Your task to perform on an android device: open a bookmark in the chrome app Image 0: 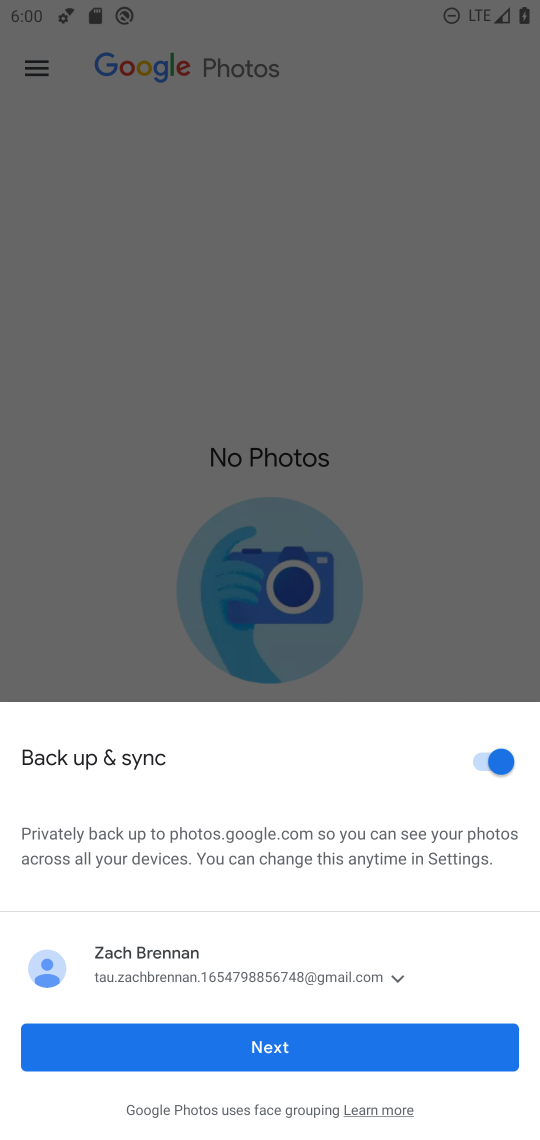
Step 0: press home button
Your task to perform on an android device: open a bookmark in the chrome app Image 1: 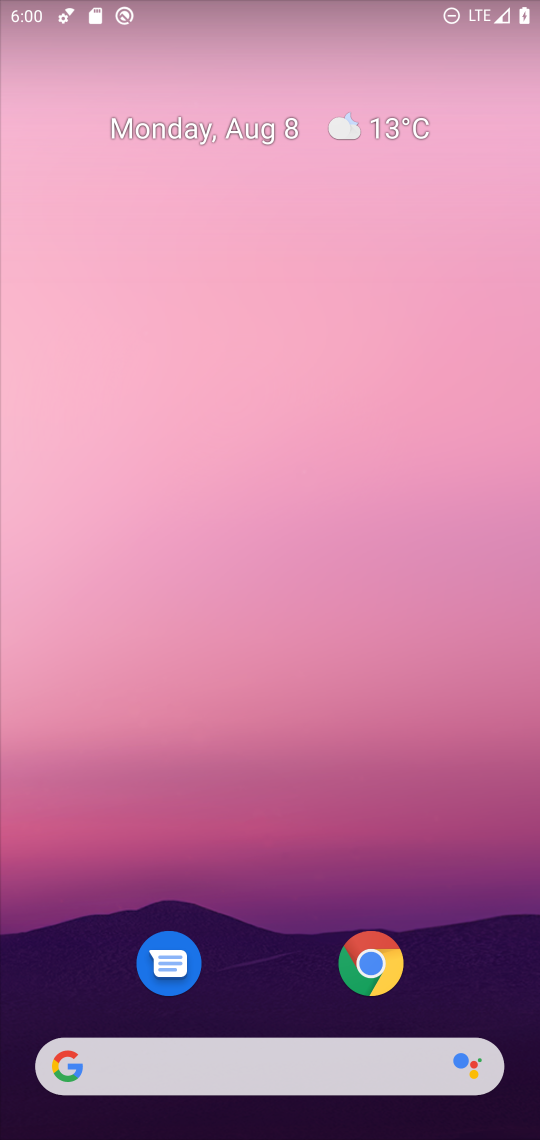
Step 1: drag from (294, 870) to (344, 92)
Your task to perform on an android device: open a bookmark in the chrome app Image 2: 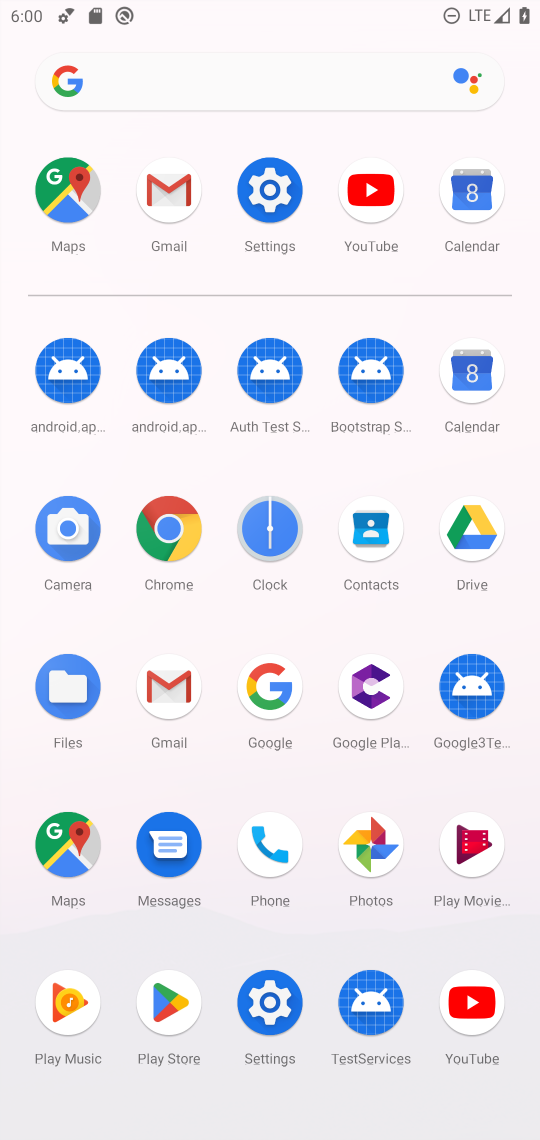
Step 2: click (174, 528)
Your task to perform on an android device: open a bookmark in the chrome app Image 3: 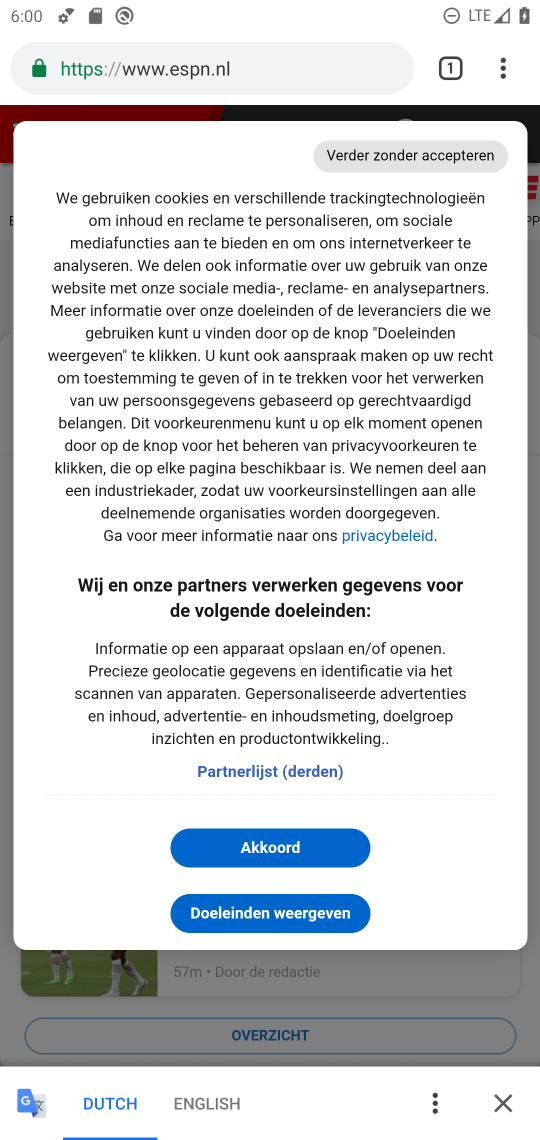
Step 3: click (491, 65)
Your task to perform on an android device: open a bookmark in the chrome app Image 4: 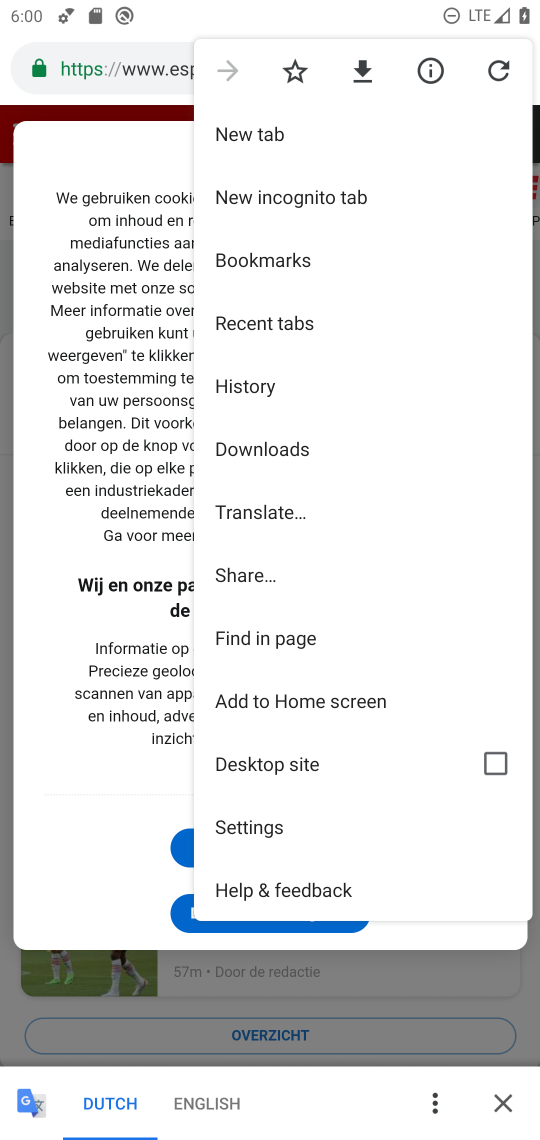
Step 4: click (326, 260)
Your task to perform on an android device: open a bookmark in the chrome app Image 5: 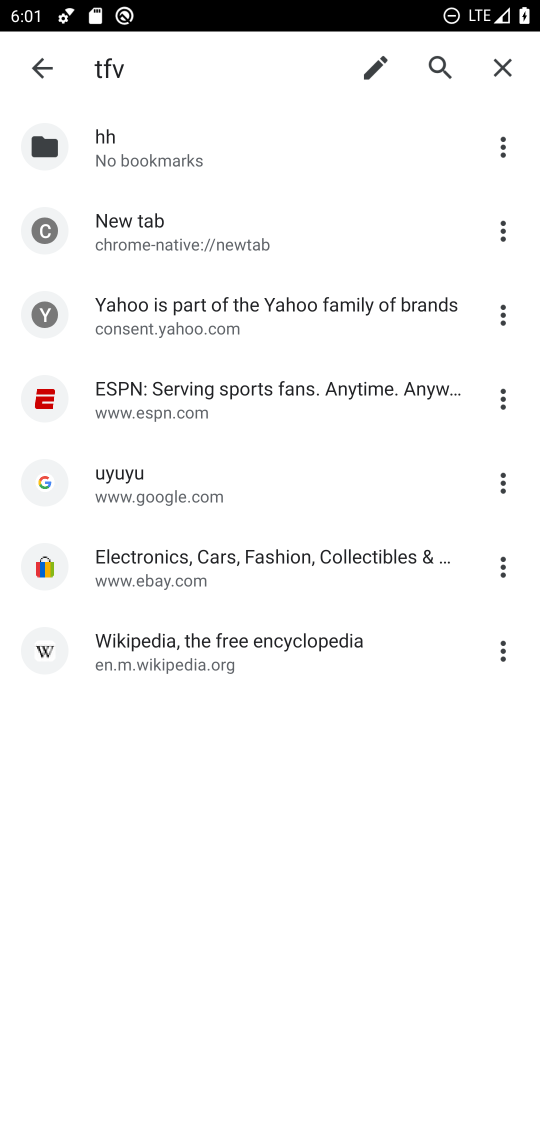
Step 5: click (193, 327)
Your task to perform on an android device: open a bookmark in the chrome app Image 6: 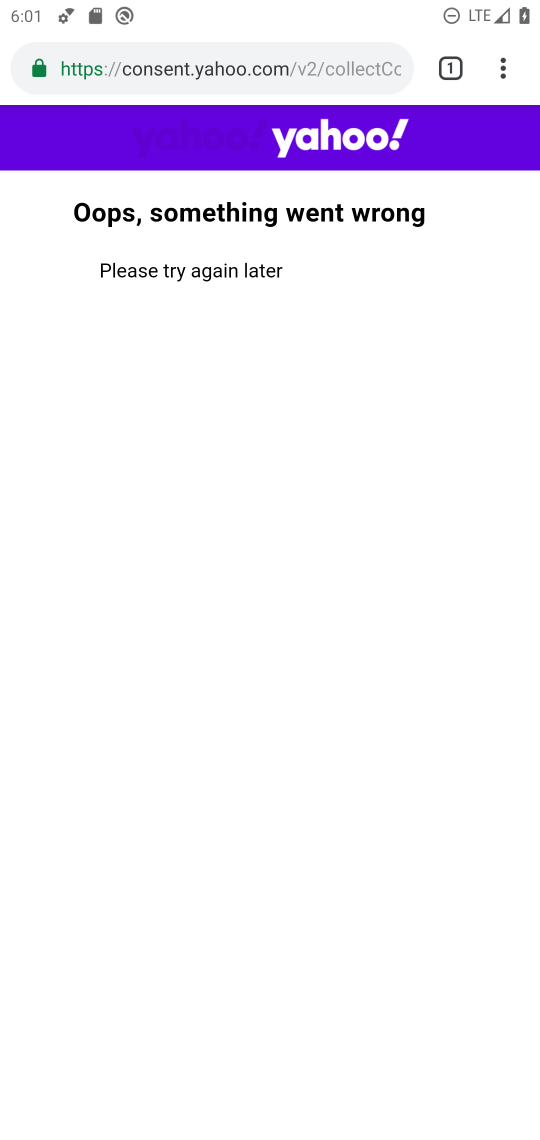
Step 6: task complete